Your task to perform on an android device: delete location history Image 0: 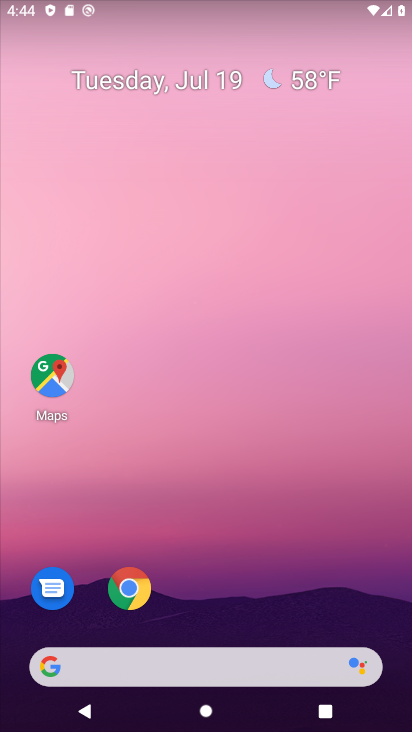
Step 0: drag from (271, 556) to (275, 126)
Your task to perform on an android device: delete location history Image 1: 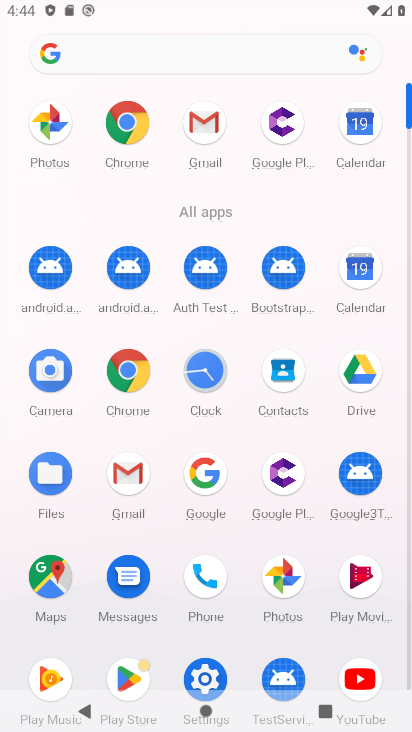
Step 1: click (52, 565)
Your task to perform on an android device: delete location history Image 2: 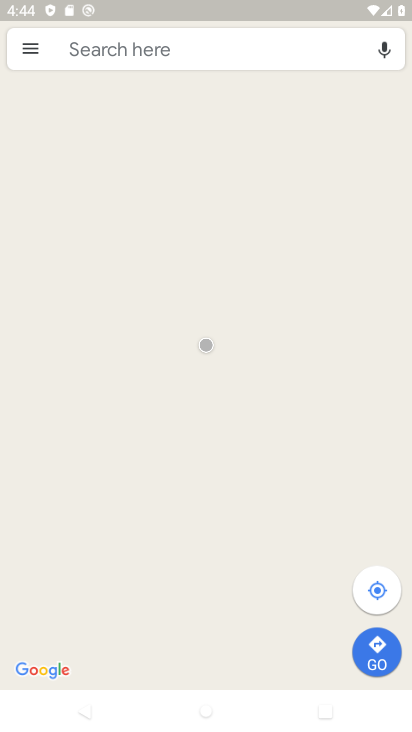
Step 2: click (28, 41)
Your task to perform on an android device: delete location history Image 3: 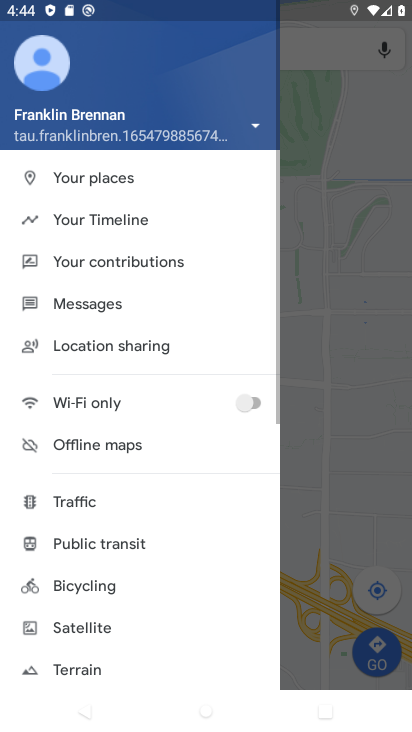
Step 3: drag from (114, 637) to (152, 293)
Your task to perform on an android device: delete location history Image 4: 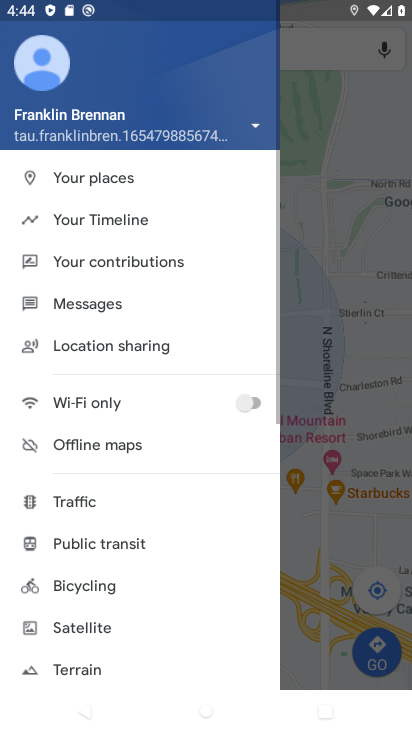
Step 4: click (67, 550)
Your task to perform on an android device: delete location history Image 5: 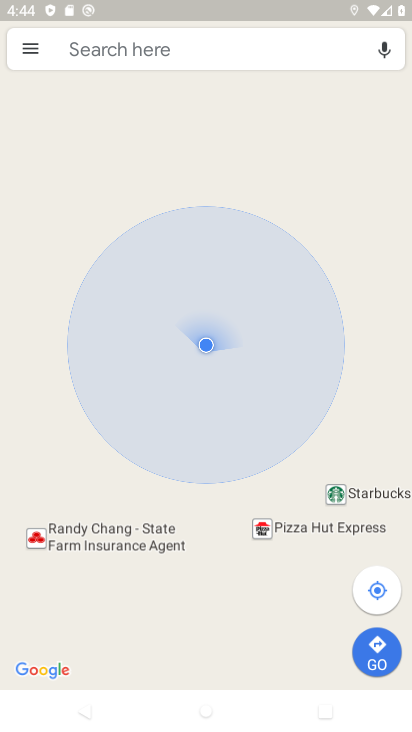
Step 5: click (34, 47)
Your task to perform on an android device: delete location history Image 6: 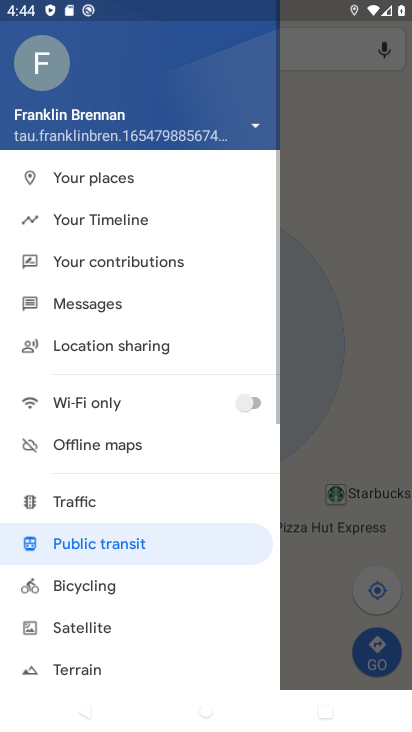
Step 6: drag from (91, 601) to (129, 176)
Your task to perform on an android device: delete location history Image 7: 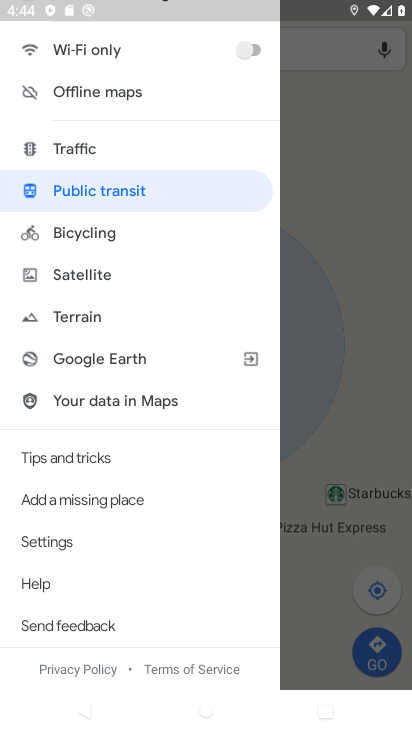
Step 7: click (57, 544)
Your task to perform on an android device: delete location history Image 8: 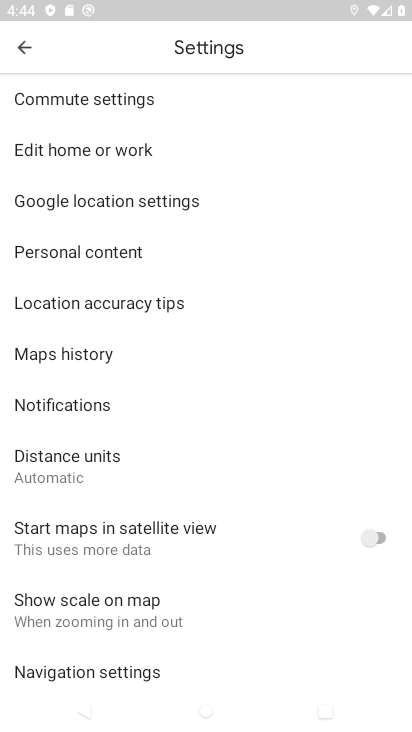
Step 8: click (100, 346)
Your task to perform on an android device: delete location history Image 9: 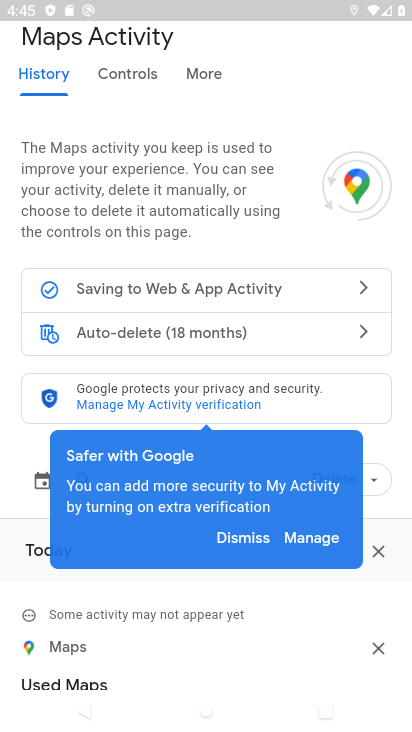
Step 9: click (370, 486)
Your task to perform on an android device: delete location history Image 10: 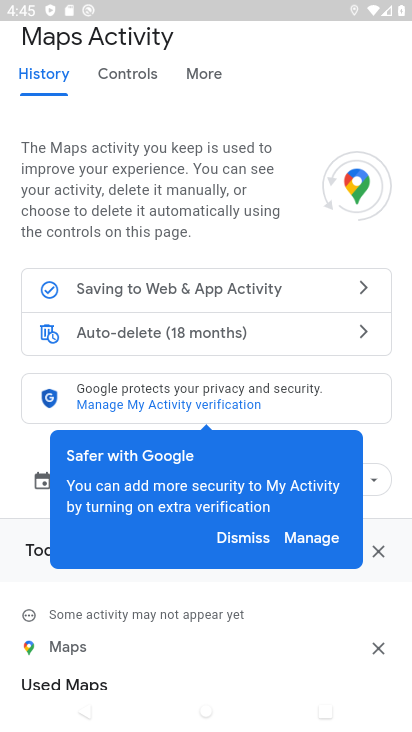
Step 10: click (214, 555)
Your task to perform on an android device: delete location history Image 11: 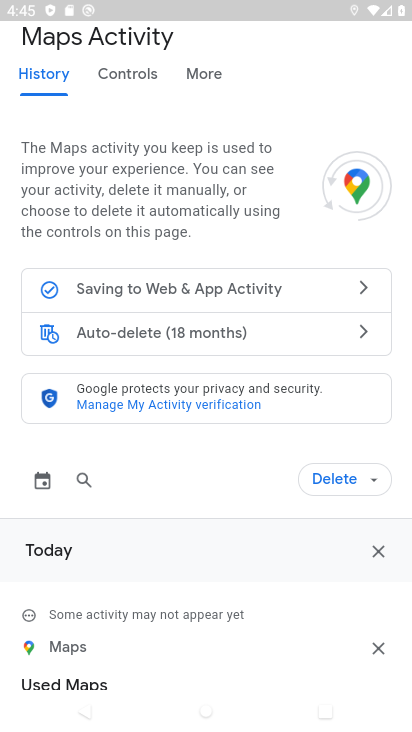
Step 11: click (229, 545)
Your task to perform on an android device: delete location history Image 12: 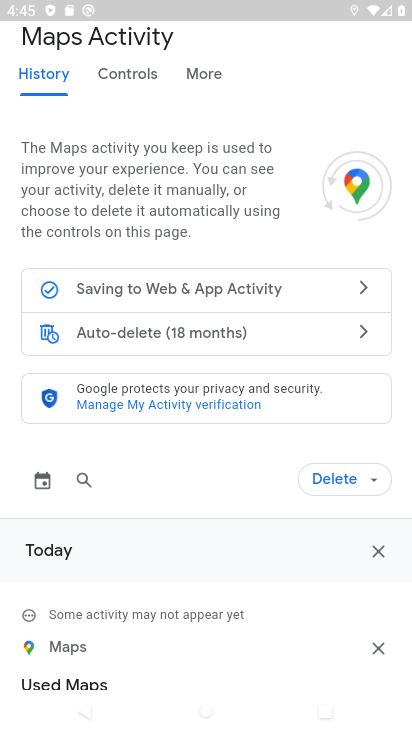
Step 12: click (359, 482)
Your task to perform on an android device: delete location history Image 13: 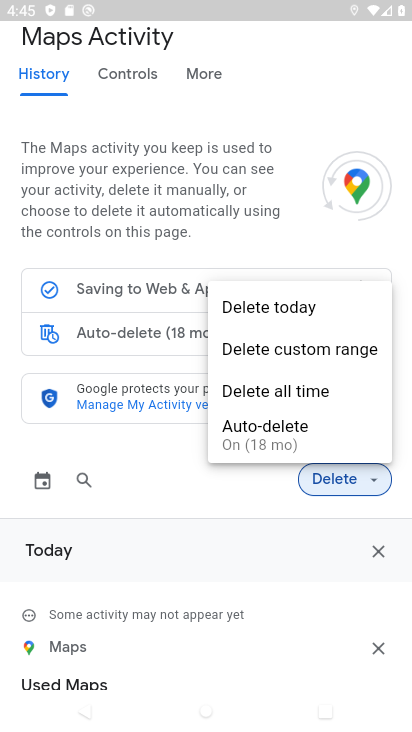
Step 13: click (374, 479)
Your task to perform on an android device: delete location history Image 14: 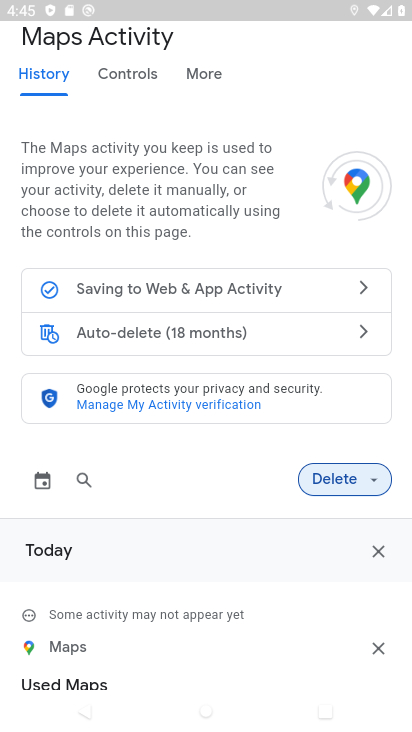
Step 14: click (375, 483)
Your task to perform on an android device: delete location history Image 15: 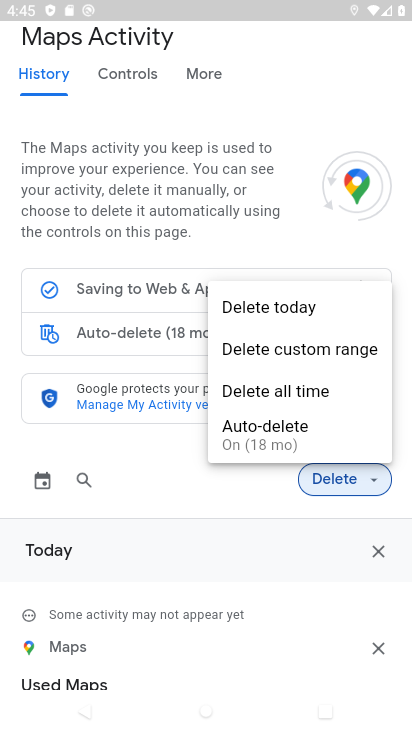
Step 15: click (306, 387)
Your task to perform on an android device: delete location history Image 16: 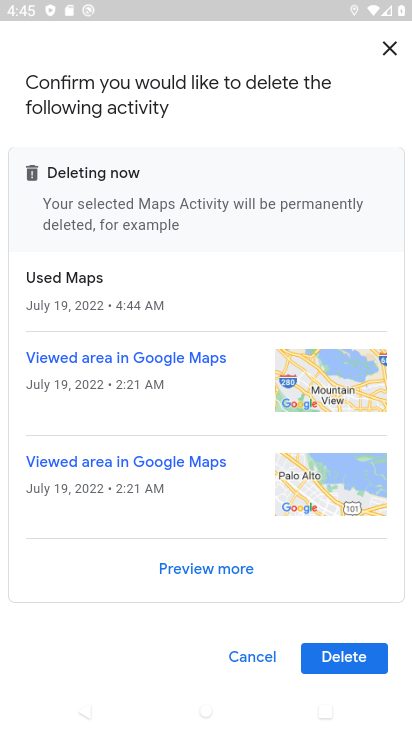
Step 16: click (361, 663)
Your task to perform on an android device: delete location history Image 17: 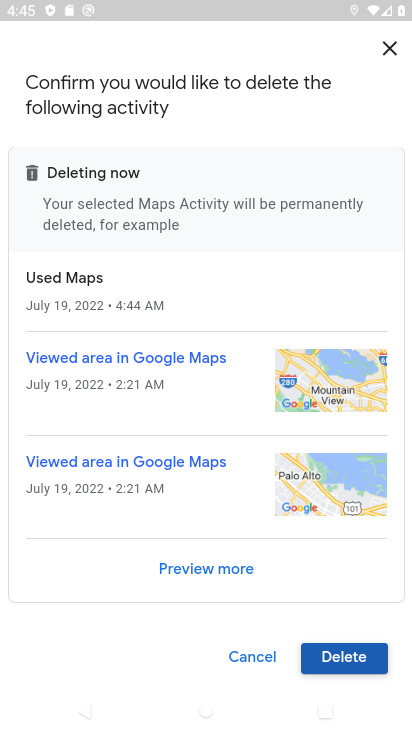
Step 17: click (347, 653)
Your task to perform on an android device: delete location history Image 18: 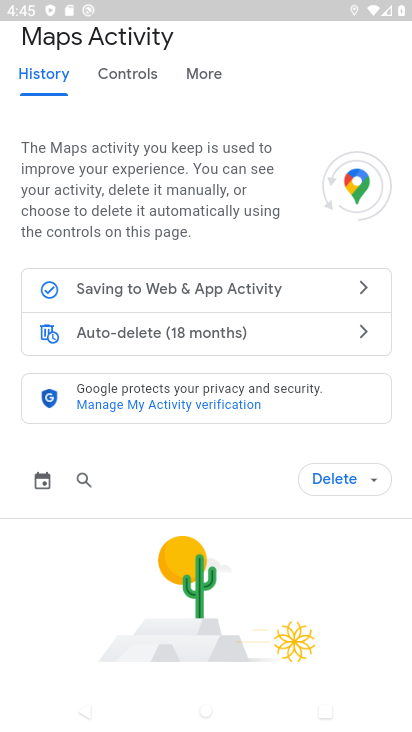
Step 18: click (346, 656)
Your task to perform on an android device: delete location history Image 19: 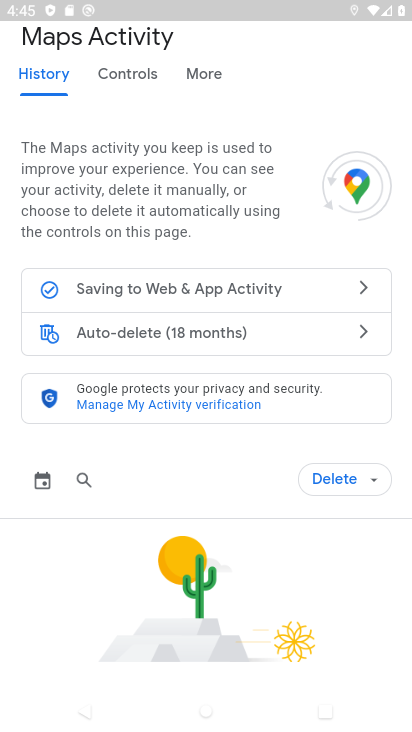
Step 19: task complete